Your task to perform on an android device: Open network settings Image 0: 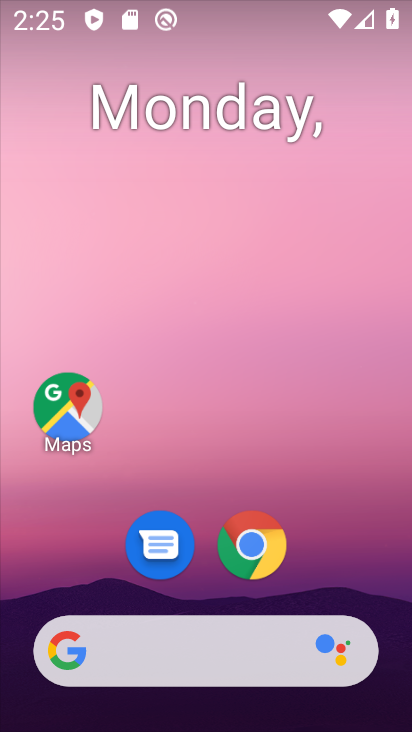
Step 0: drag from (192, 583) to (270, 83)
Your task to perform on an android device: Open network settings Image 1: 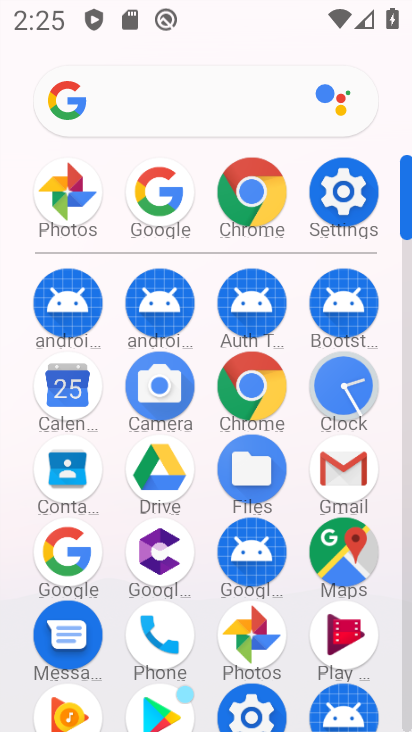
Step 1: click (351, 185)
Your task to perform on an android device: Open network settings Image 2: 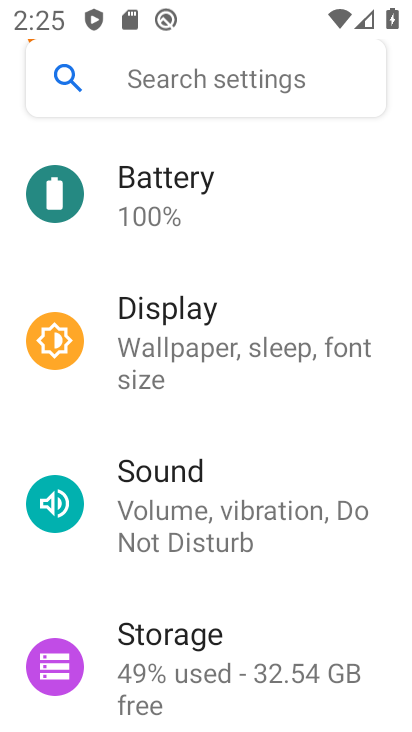
Step 2: drag from (252, 173) to (169, 731)
Your task to perform on an android device: Open network settings Image 3: 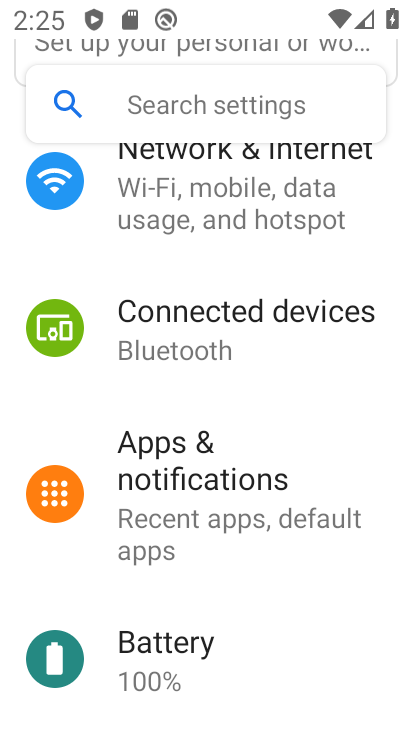
Step 3: click (228, 181)
Your task to perform on an android device: Open network settings Image 4: 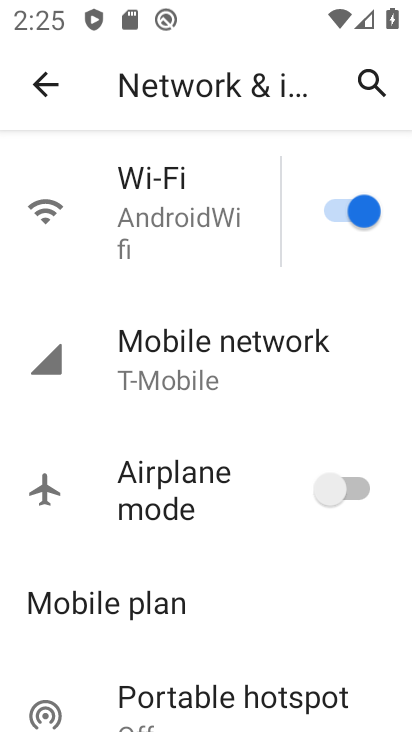
Step 4: task complete